Your task to perform on an android device: set the stopwatch Image 0: 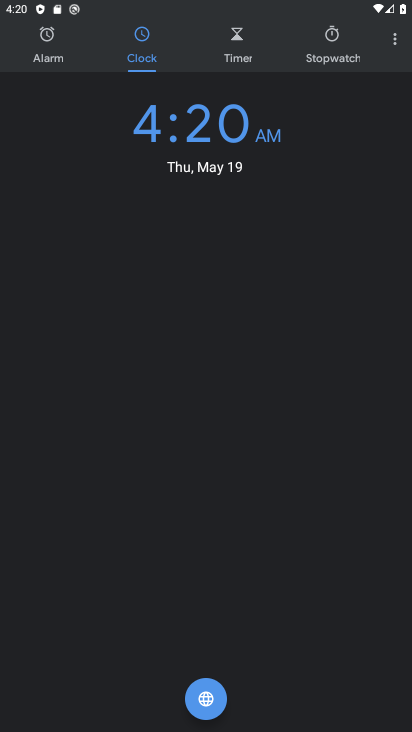
Step 0: press home button
Your task to perform on an android device: set the stopwatch Image 1: 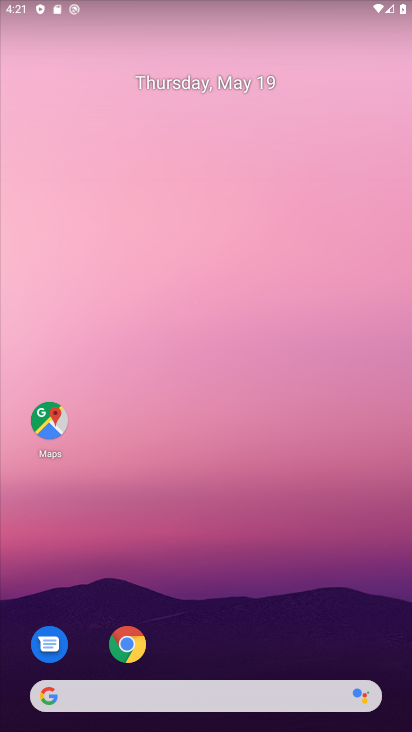
Step 1: click (214, 237)
Your task to perform on an android device: set the stopwatch Image 2: 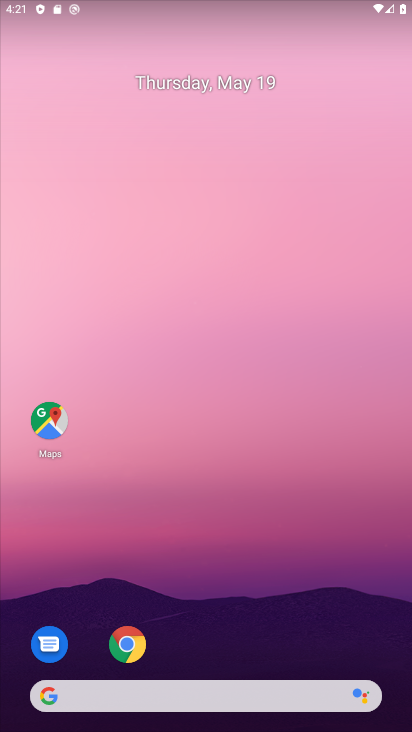
Step 2: drag from (224, 684) to (223, 192)
Your task to perform on an android device: set the stopwatch Image 3: 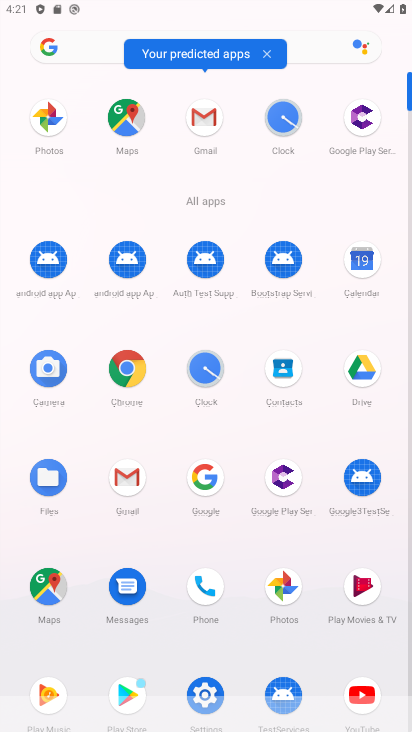
Step 3: click (291, 116)
Your task to perform on an android device: set the stopwatch Image 4: 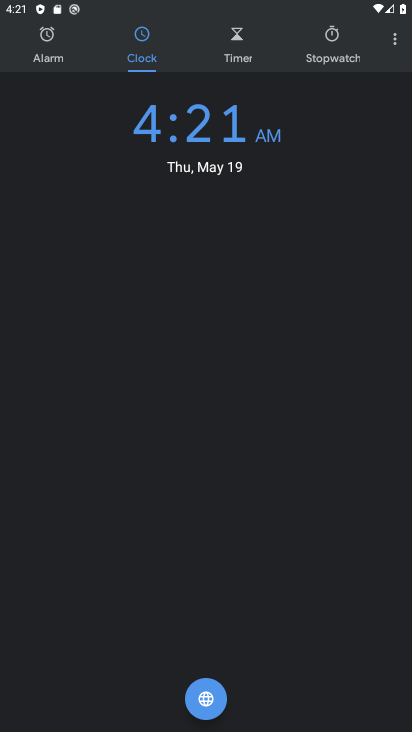
Step 4: click (337, 42)
Your task to perform on an android device: set the stopwatch Image 5: 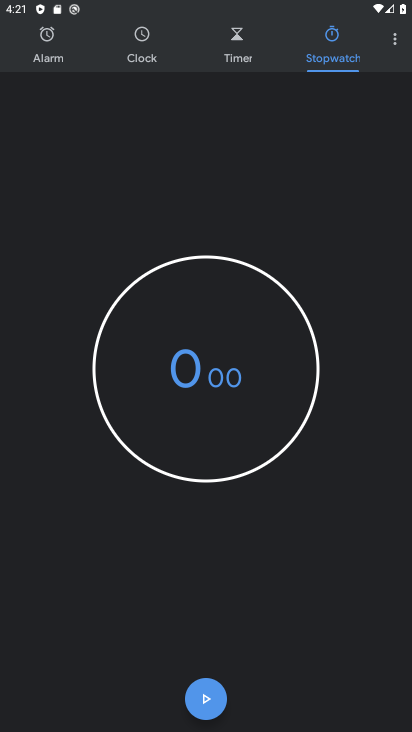
Step 5: click (206, 702)
Your task to perform on an android device: set the stopwatch Image 6: 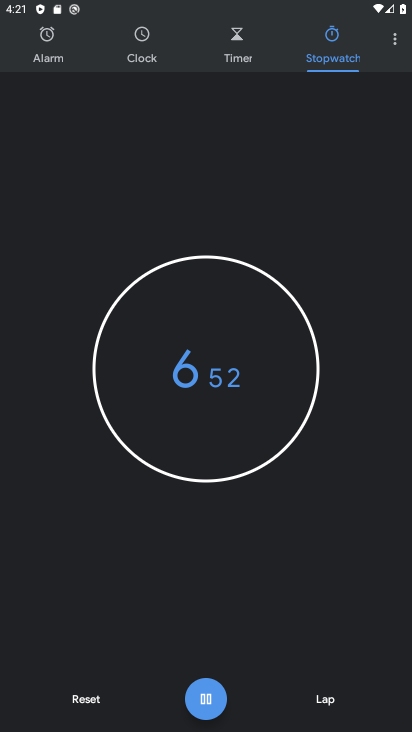
Step 6: click (214, 684)
Your task to perform on an android device: set the stopwatch Image 7: 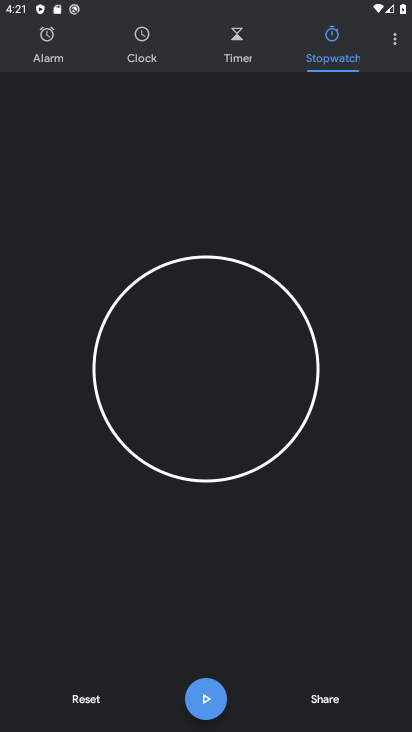
Step 7: task complete